Your task to perform on an android device: toggle priority inbox in the gmail app Image 0: 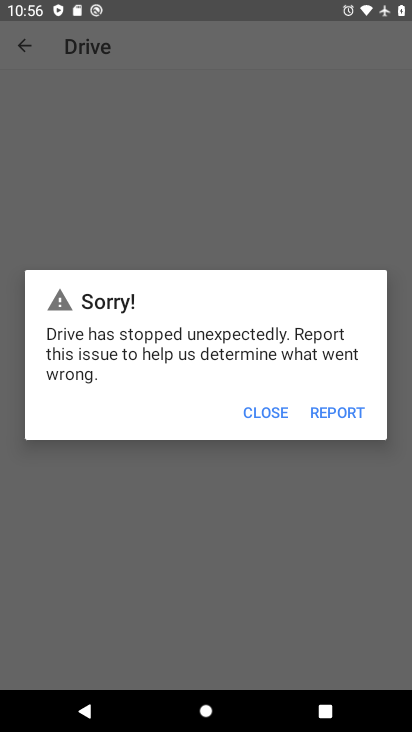
Step 0: press home button
Your task to perform on an android device: toggle priority inbox in the gmail app Image 1: 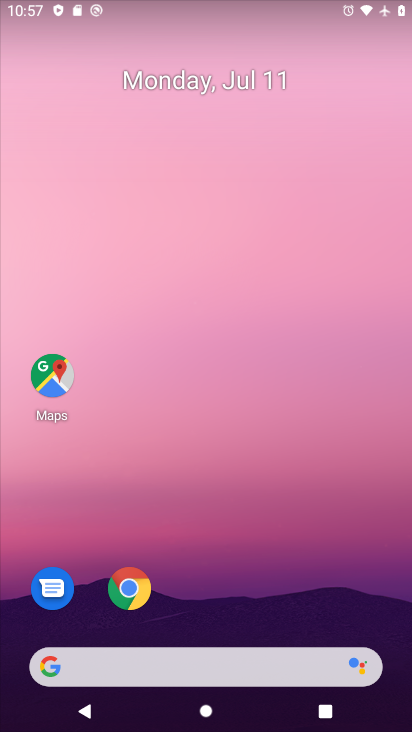
Step 1: drag from (196, 669) to (257, 227)
Your task to perform on an android device: toggle priority inbox in the gmail app Image 2: 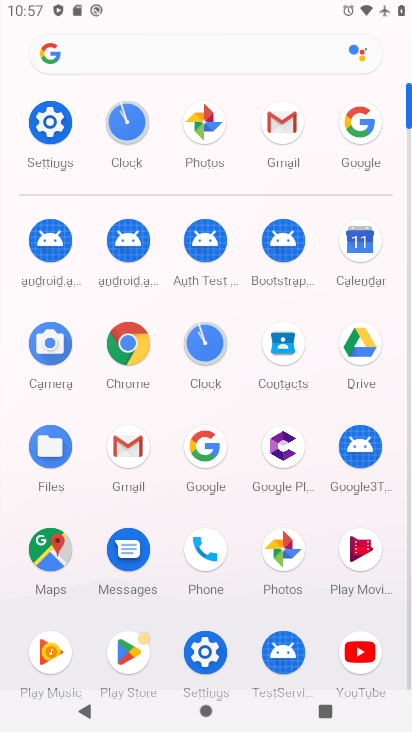
Step 2: click (282, 126)
Your task to perform on an android device: toggle priority inbox in the gmail app Image 3: 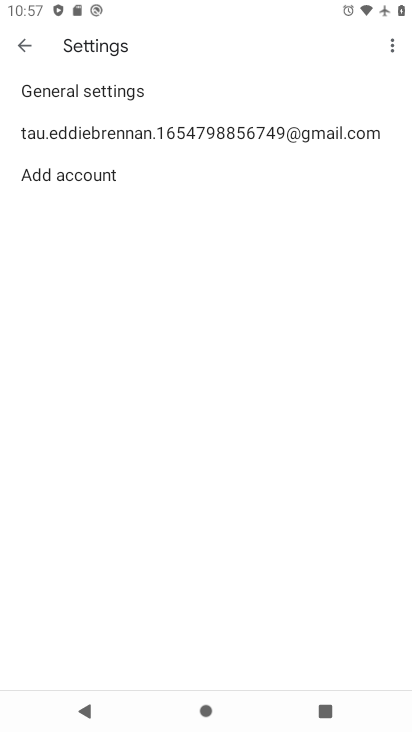
Step 3: click (190, 125)
Your task to perform on an android device: toggle priority inbox in the gmail app Image 4: 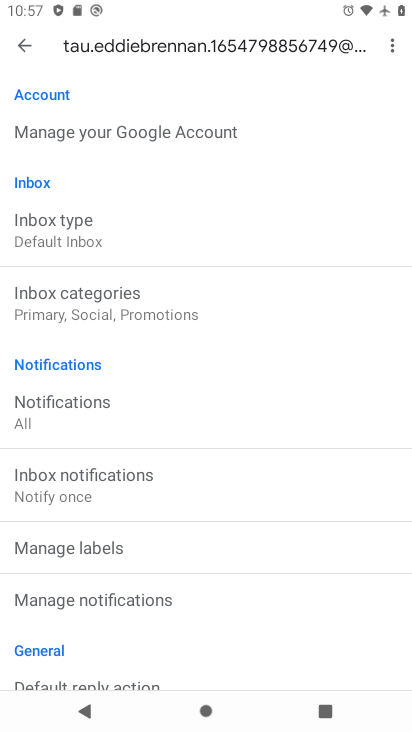
Step 4: click (77, 241)
Your task to perform on an android device: toggle priority inbox in the gmail app Image 5: 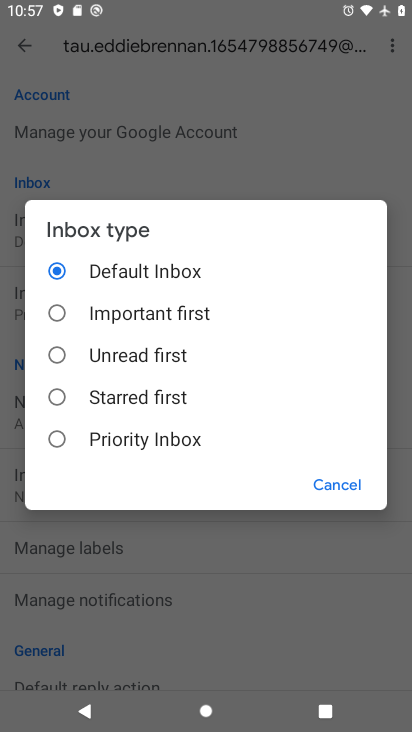
Step 5: click (60, 438)
Your task to perform on an android device: toggle priority inbox in the gmail app Image 6: 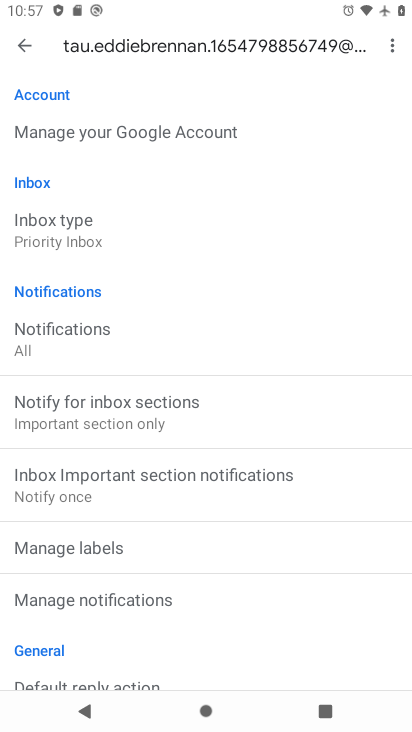
Step 6: task complete